Your task to perform on an android device: Do I have any events today? Image 0: 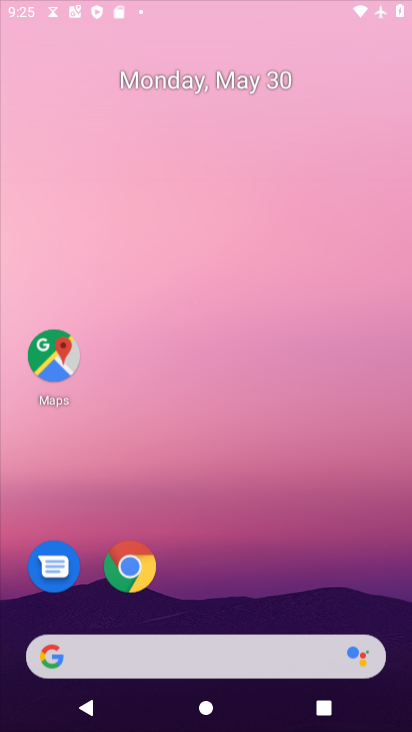
Step 0: drag from (246, 605) to (249, 303)
Your task to perform on an android device: Do I have any events today? Image 1: 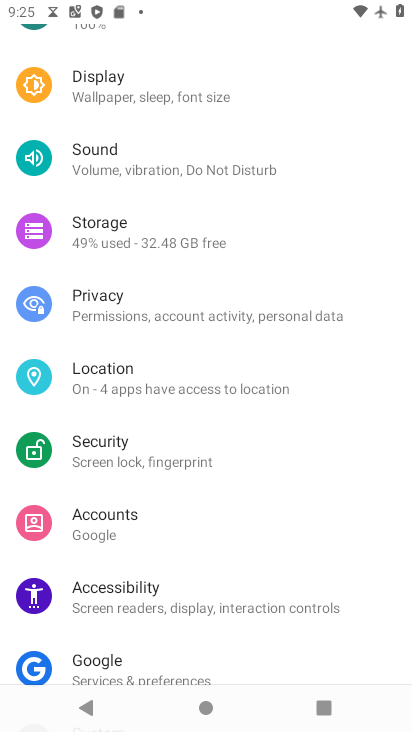
Step 1: press home button
Your task to perform on an android device: Do I have any events today? Image 2: 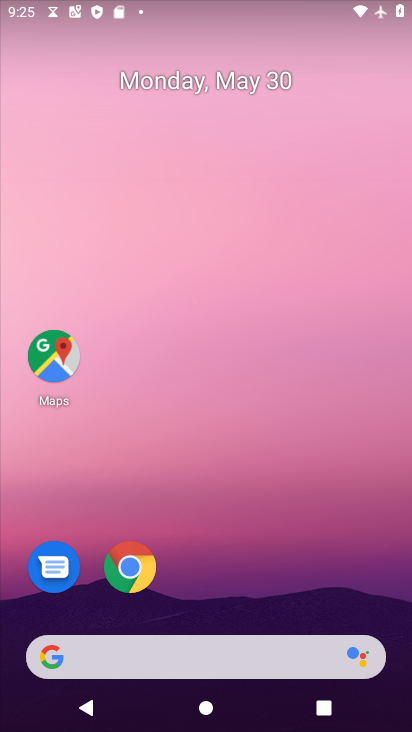
Step 2: drag from (257, 588) to (281, 204)
Your task to perform on an android device: Do I have any events today? Image 3: 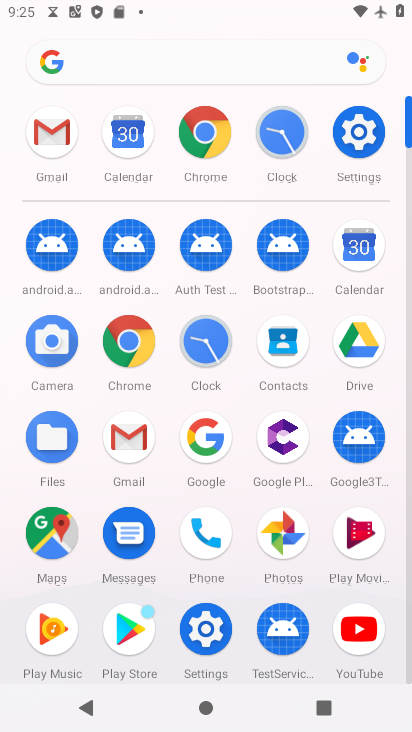
Step 3: click (363, 251)
Your task to perform on an android device: Do I have any events today? Image 4: 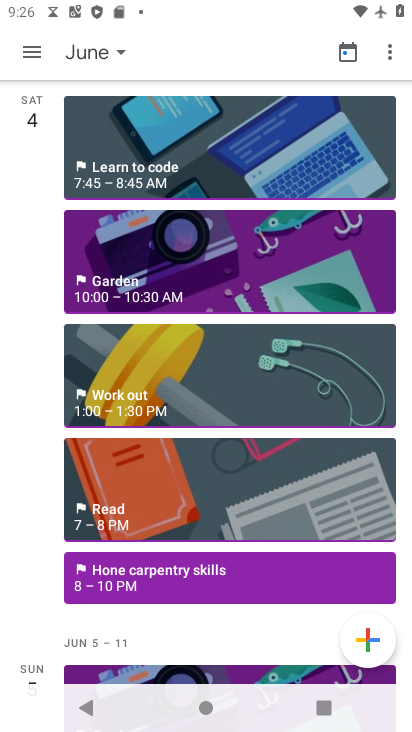
Step 4: click (88, 52)
Your task to perform on an android device: Do I have any events today? Image 5: 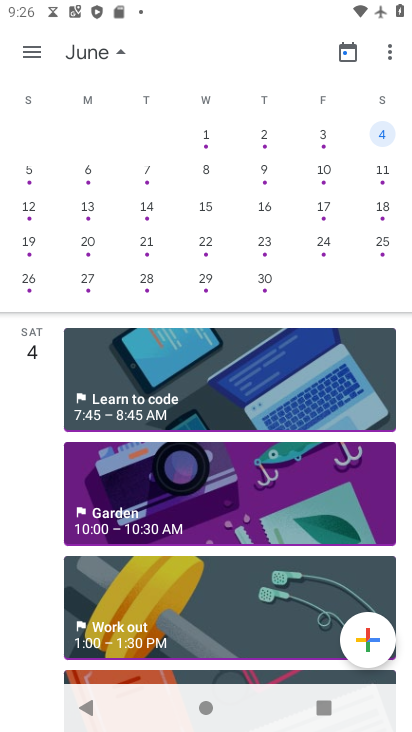
Step 5: drag from (85, 177) to (409, 134)
Your task to perform on an android device: Do I have any events today? Image 6: 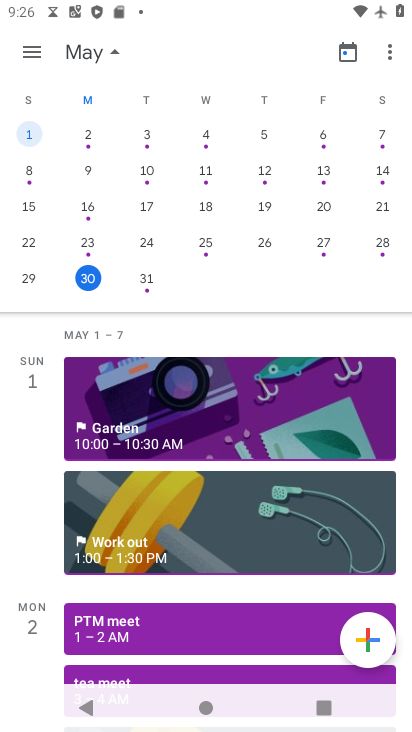
Step 6: click (145, 287)
Your task to perform on an android device: Do I have any events today? Image 7: 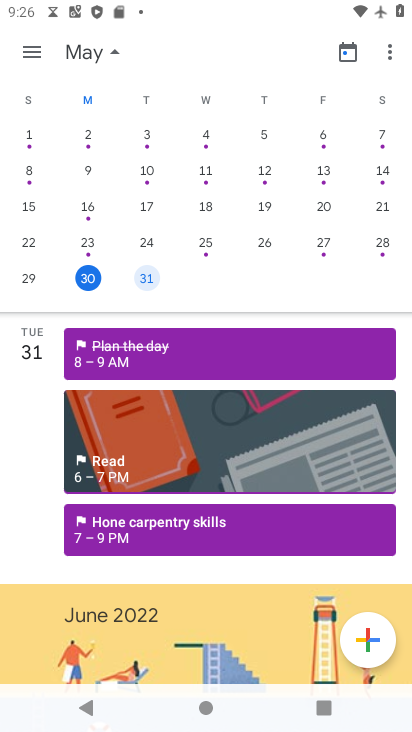
Step 7: click (111, 50)
Your task to perform on an android device: Do I have any events today? Image 8: 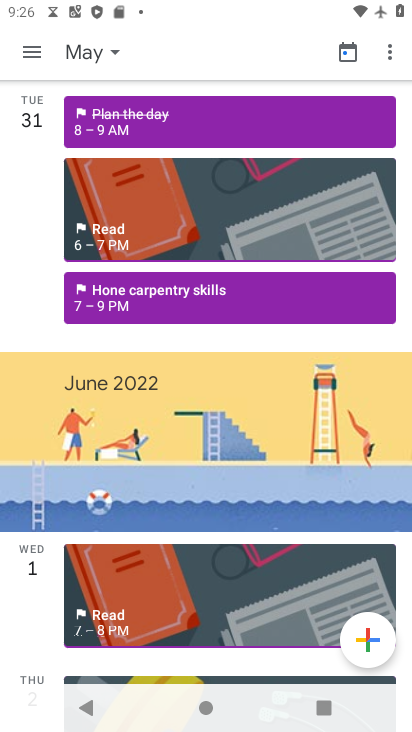
Step 8: task complete